Your task to perform on an android device: find which apps use the phone's location Image 0: 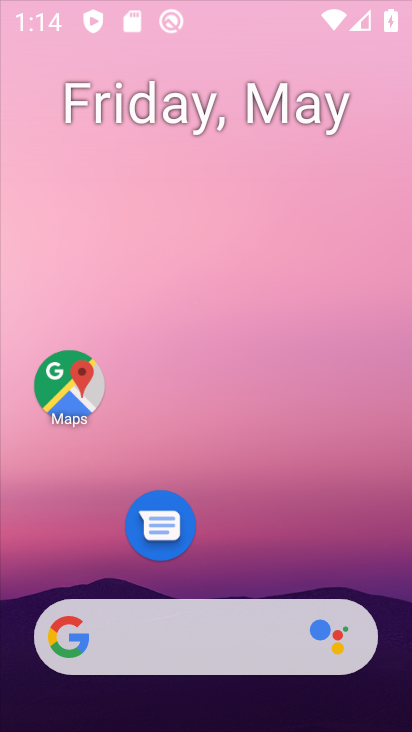
Step 0: click (298, 179)
Your task to perform on an android device: find which apps use the phone's location Image 1: 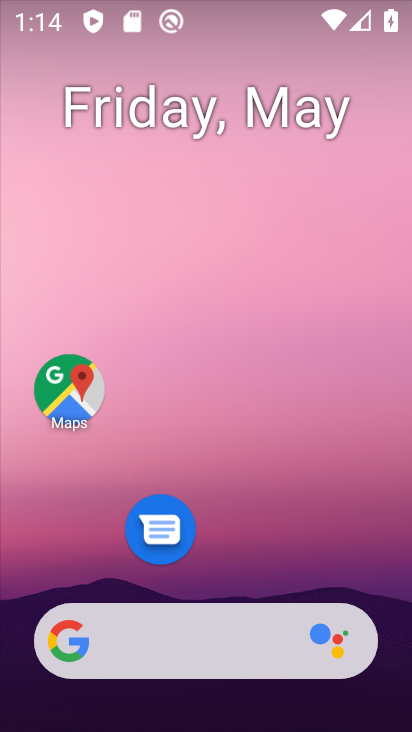
Step 1: drag from (229, 578) to (232, 320)
Your task to perform on an android device: find which apps use the phone's location Image 2: 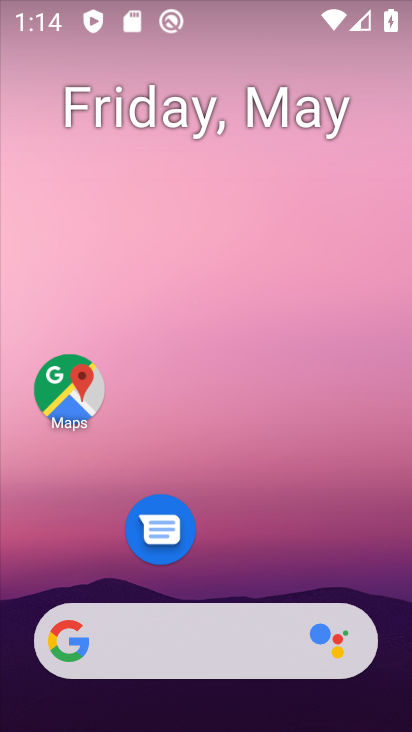
Step 2: drag from (243, 571) to (304, 120)
Your task to perform on an android device: find which apps use the phone's location Image 3: 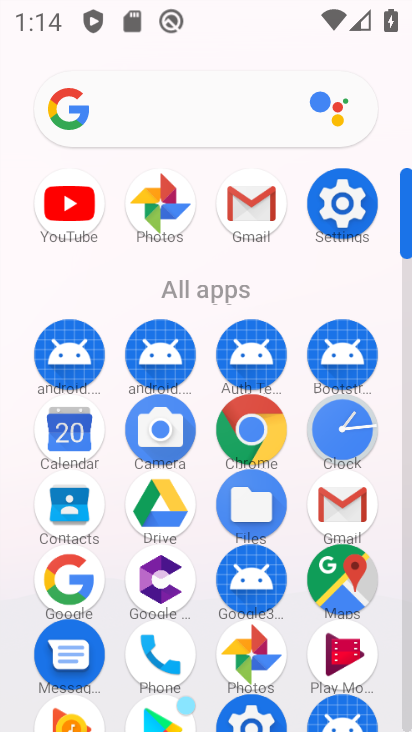
Step 3: click (345, 207)
Your task to perform on an android device: find which apps use the phone's location Image 4: 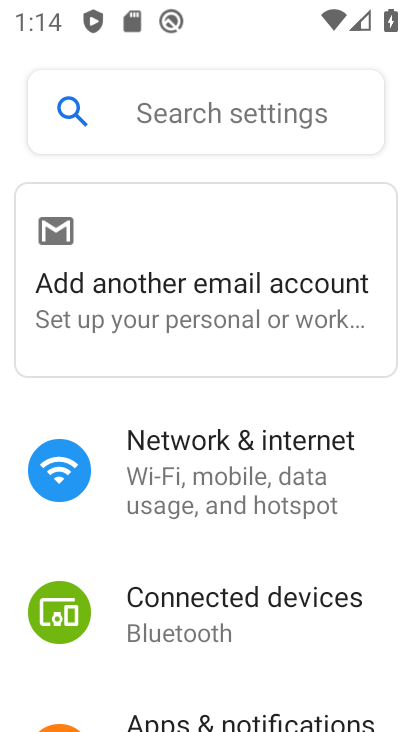
Step 4: drag from (228, 541) to (288, 179)
Your task to perform on an android device: find which apps use the phone's location Image 5: 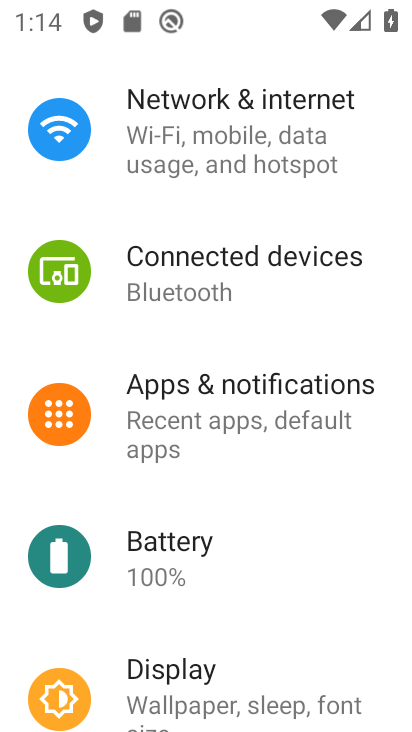
Step 5: drag from (227, 512) to (268, 185)
Your task to perform on an android device: find which apps use the phone's location Image 6: 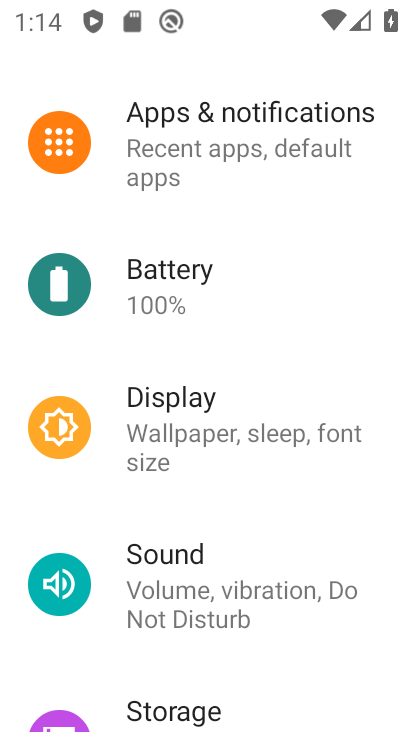
Step 6: drag from (252, 507) to (353, 75)
Your task to perform on an android device: find which apps use the phone's location Image 7: 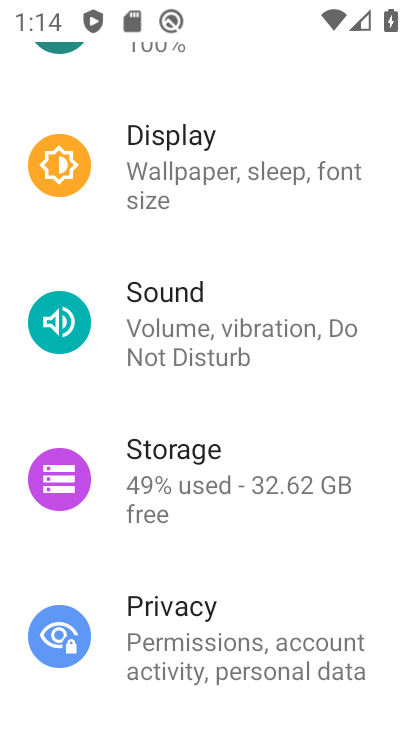
Step 7: drag from (241, 508) to (323, 142)
Your task to perform on an android device: find which apps use the phone's location Image 8: 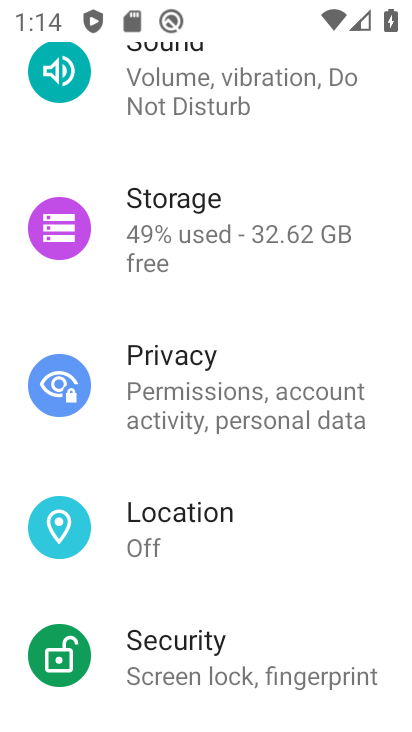
Step 8: click (199, 550)
Your task to perform on an android device: find which apps use the phone's location Image 9: 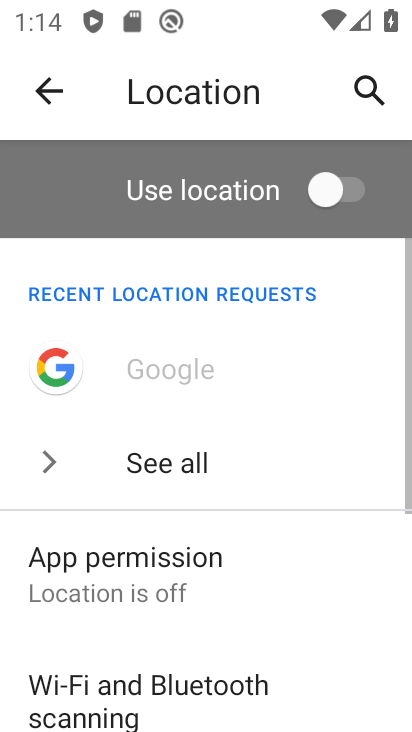
Step 9: drag from (209, 602) to (271, 270)
Your task to perform on an android device: find which apps use the phone's location Image 10: 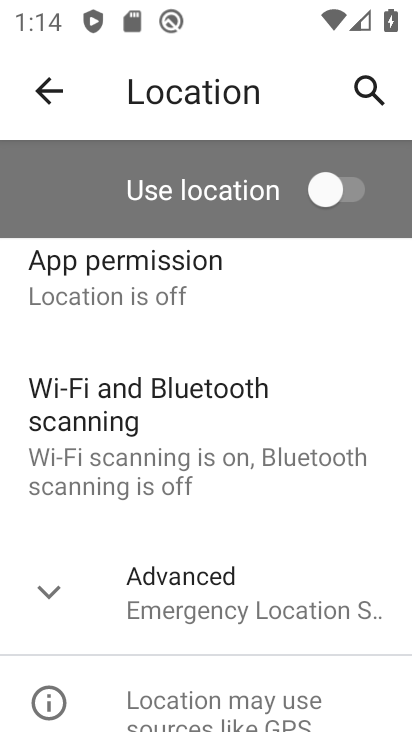
Step 10: drag from (242, 584) to (265, 355)
Your task to perform on an android device: find which apps use the phone's location Image 11: 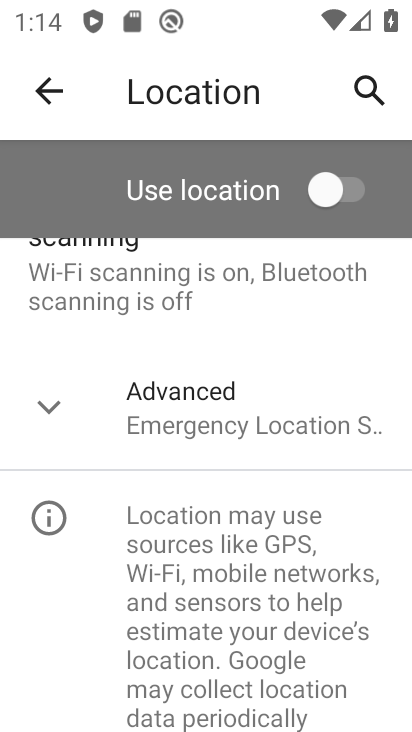
Step 11: click (210, 400)
Your task to perform on an android device: find which apps use the phone's location Image 12: 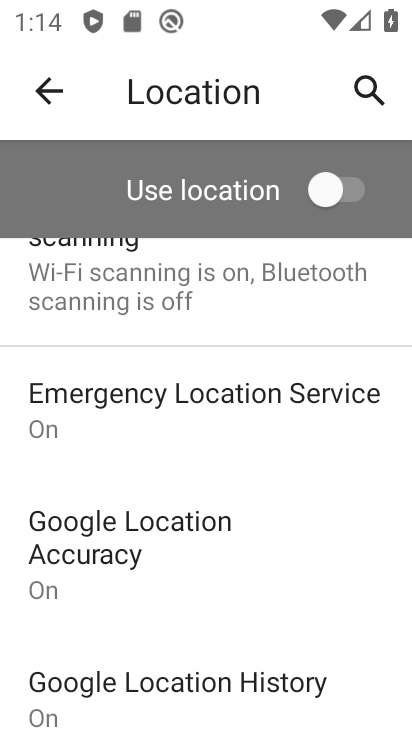
Step 12: drag from (252, 528) to (303, 316)
Your task to perform on an android device: find which apps use the phone's location Image 13: 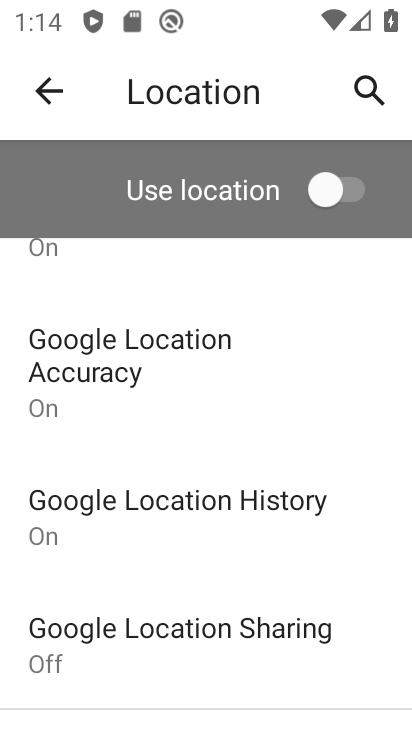
Step 13: drag from (307, 591) to (359, 728)
Your task to perform on an android device: find which apps use the phone's location Image 14: 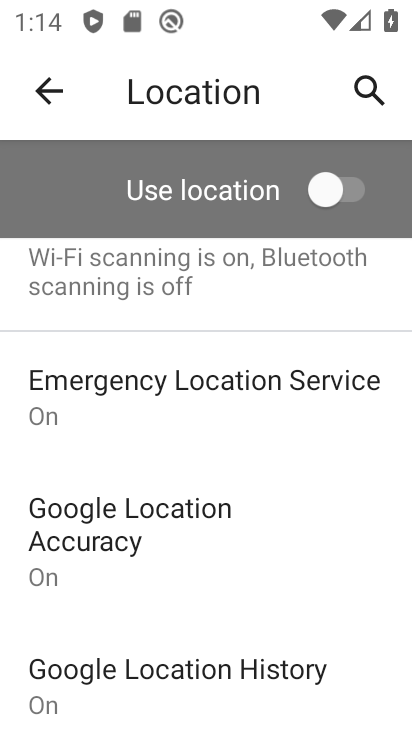
Step 14: drag from (192, 313) to (411, 669)
Your task to perform on an android device: find which apps use the phone's location Image 15: 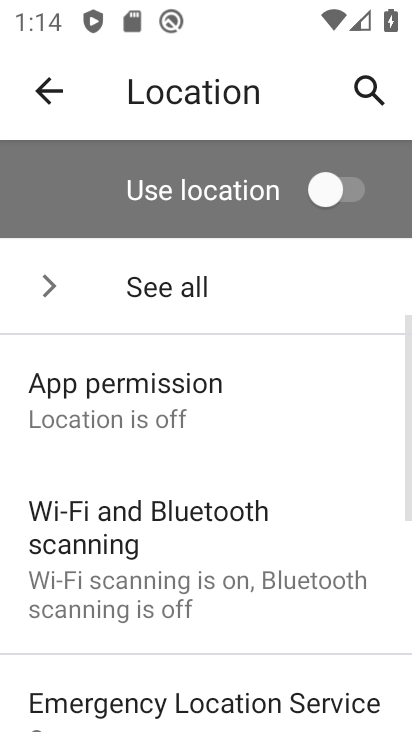
Step 15: click (204, 480)
Your task to perform on an android device: find which apps use the phone's location Image 16: 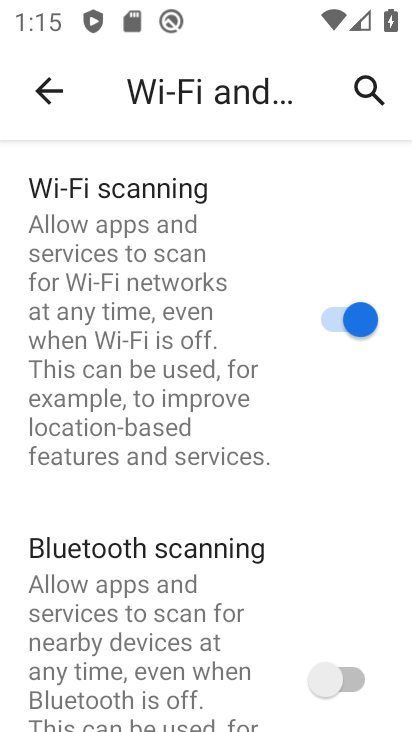
Step 16: click (64, 95)
Your task to perform on an android device: find which apps use the phone's location Image 17: 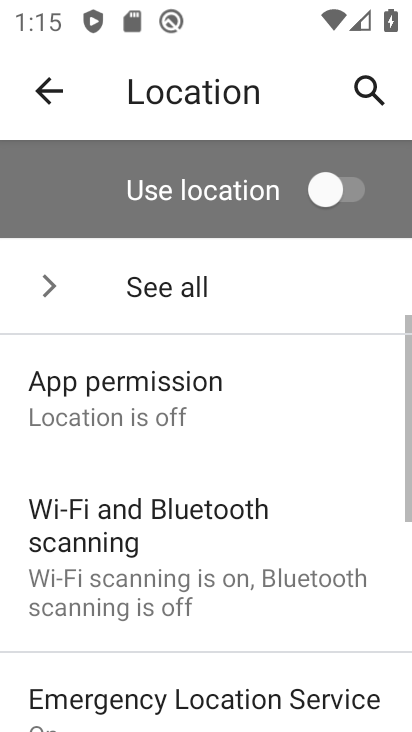
Step 17: click (162, 407)
Your task to perform on an android device: find which apps use the phone's location Image 18: 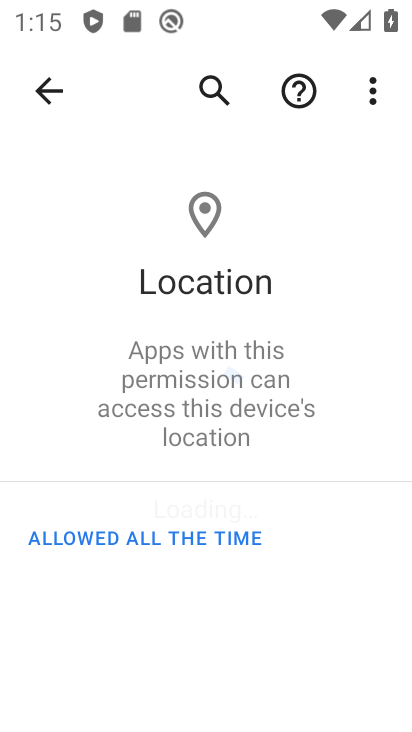
Step 18: task complete